Your task to perform on an android device: delete the emails in spam in the gmail app Image 0: 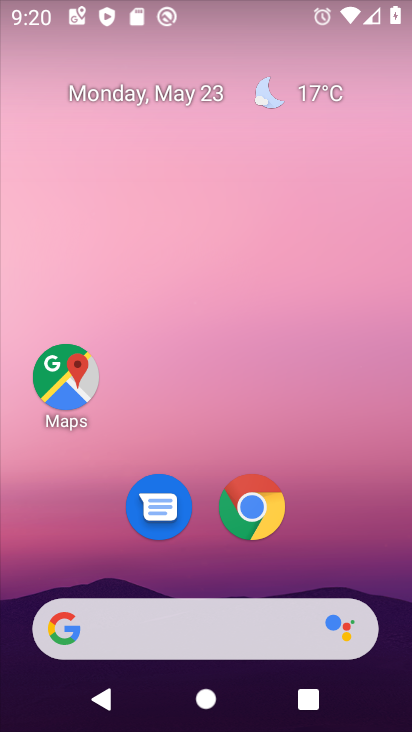
Step 0: drag from (385, 589) to (373, 4)
Your task to perform on an android device: delete the emails in spam in the gmail app Image 1: 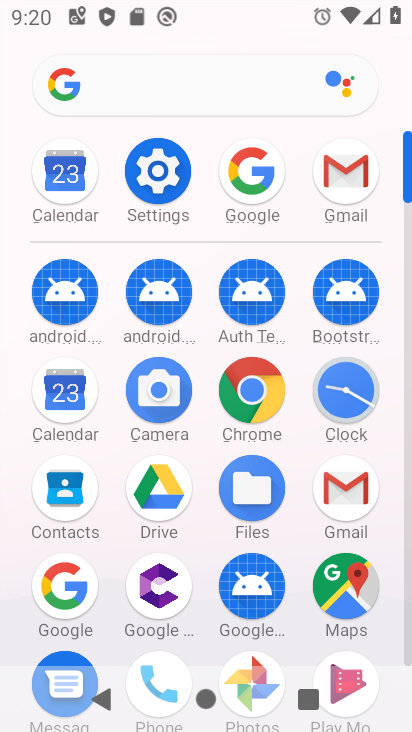
Step 1: click (343, 184)
Your task to perform on an android device: delete the emails in spam in the gmail app Image 2: 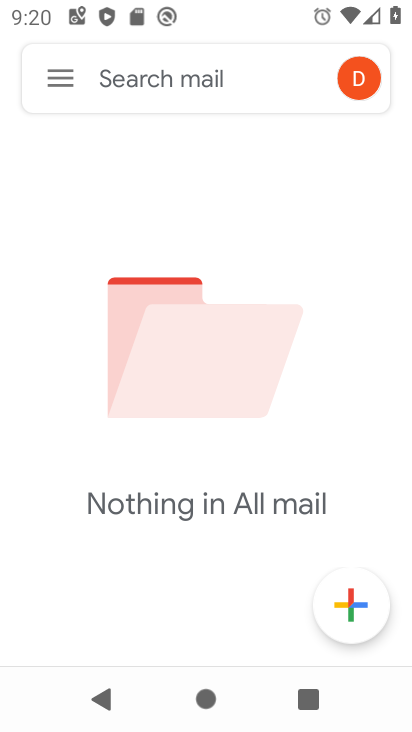
Step 2: click (55, 86)
Your task to perform on an android device: delete the emails in spam in the gmail app Image 3: 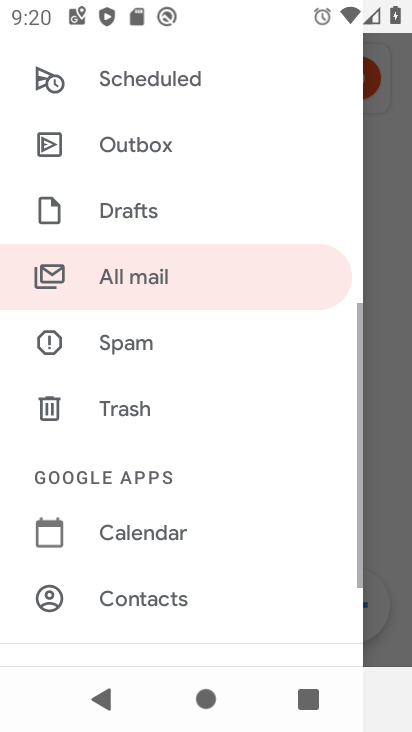
Step 3: click (120, 340)
Your task to perform on an android device: delete the emails in spam in the gmail app Image 4: 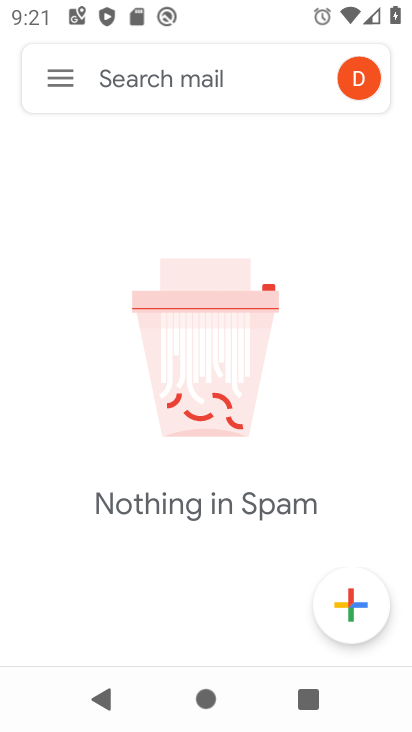
Step 4: task complete